Your task to perform on an android device: turn on airplane mode Image 0: 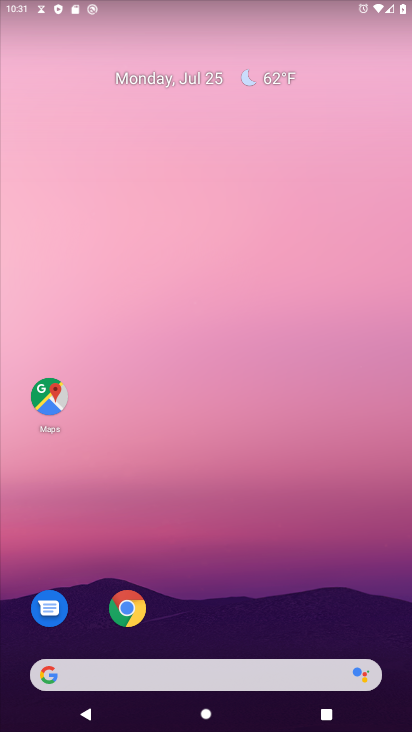
Step 0: drag from (166, 668) to (192, 137)
Your task to perform on an android device: turn on airplane mode Image 1: 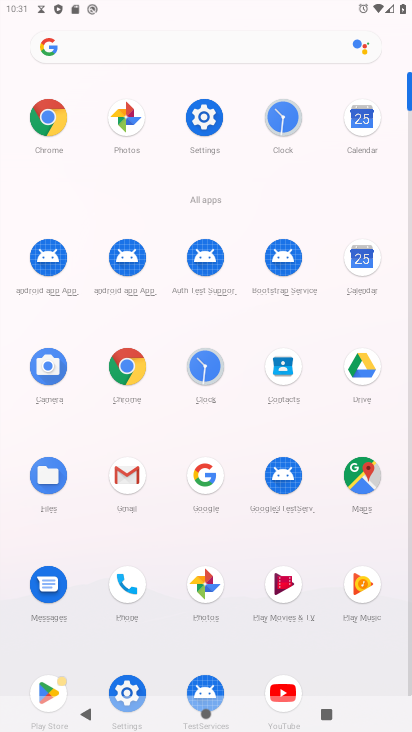
Step 1: click (204, 114)
Your task to perform on an android device: turn on airplane mode Image 2: 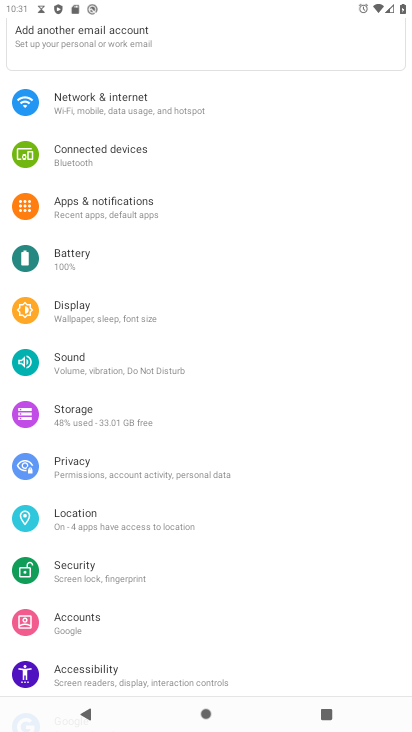
Step 2: click (171, 113)
Your task to perform on an android device: turn on airplane mode Image 3: 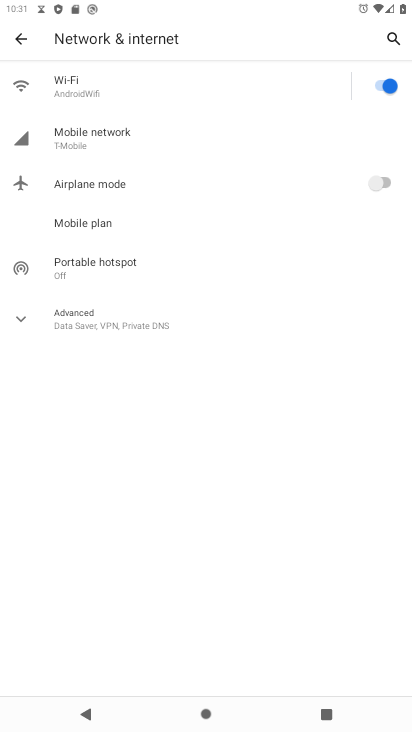
Step 3: click (371, 181)
Your task to perform on an android device: turn on airplane mode Image 4: 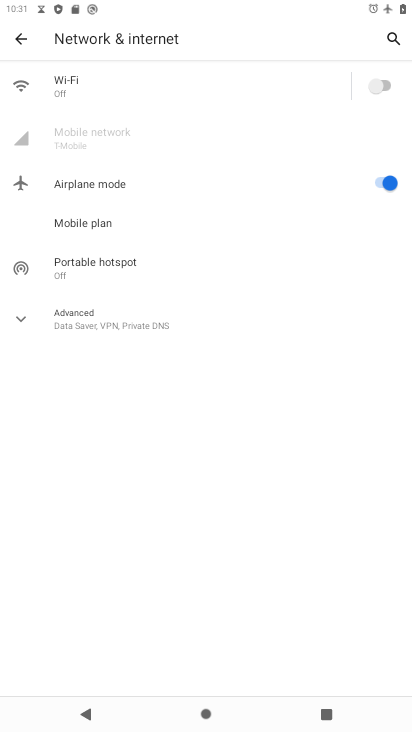
Step 4: task complete